Your task to perform on an android device: Go to CNN.com Image 0: 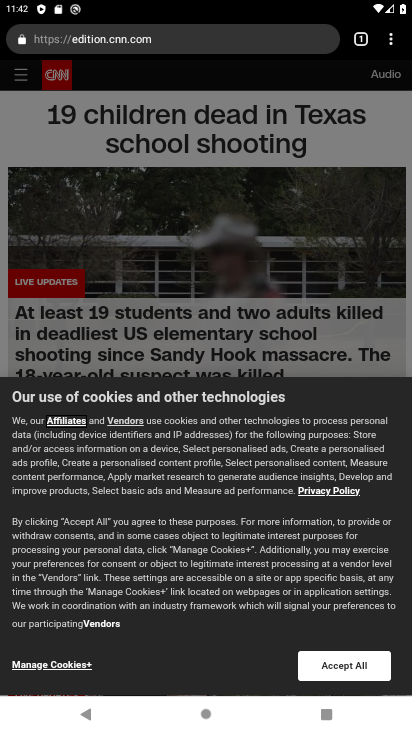
Step 0: click (336, 670)
Your task to perform on an android device: Go to CNN.com Image 1: 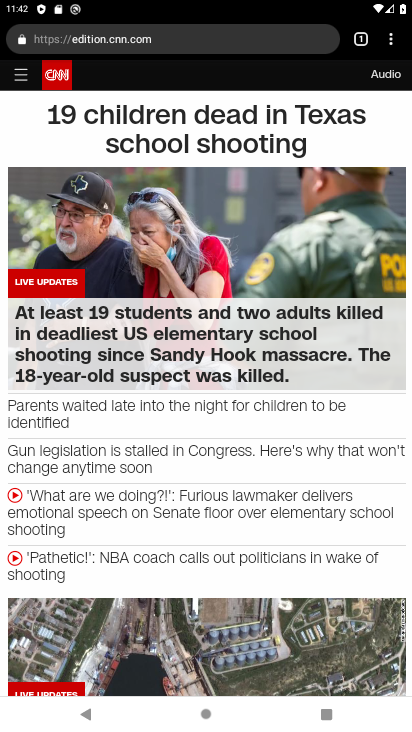
Step 1: task complete